Your task to perform on an android device: Clear the cart on costco.com. Search for "razer huntsman" on costco.com, select the first entry, and add it to the cart. Image 0: 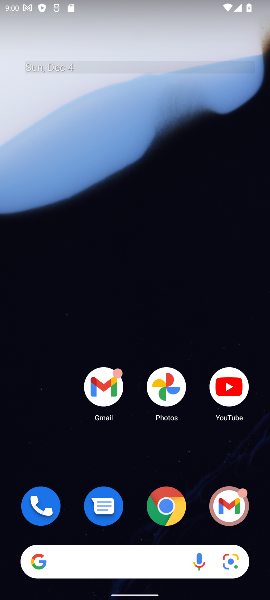
Step 0: click (155, 513)
Your task to perform on an android device: Clear the cart on costco.com. Search for "razer huntsman" on costco.com, select the first entry, and add it to the cart. Image 1: 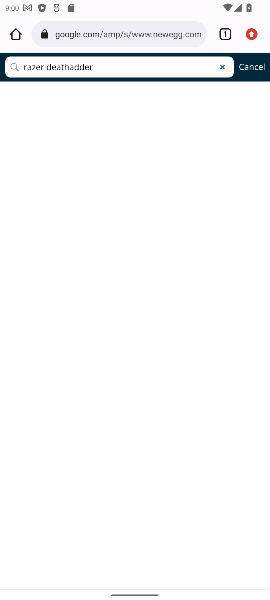
Step 1: click (102, 30)
Your task to perform on an android device: Clear the cart on costco.com. Search for "razer huntsman" on costco.com, select the first entry, and add it to the cart. Image 2: 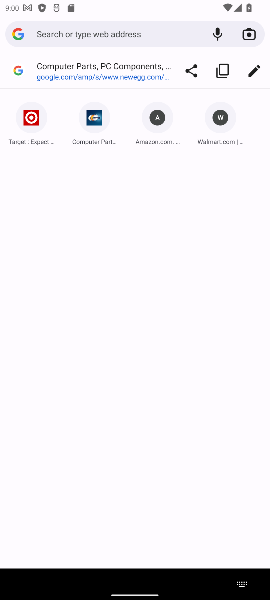
Step 2: type "costco"
Your task to perform on an android device: Clear the cart on costco.com. Search for "razer huntsman" on costco.com, select the first entry, and add it to the cart. Image 3: 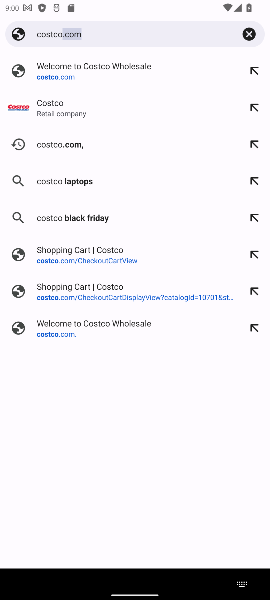
Step 3: click (61, 120)
Your task to perform on an android device: Clear the cart on costco.com. Search for "razer huntsman" on costco.com, select the first entry, and add it to the cart. Image 4: 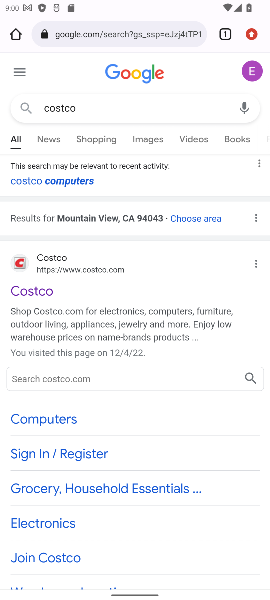
Step 4: click (37, 293)
Your task to perform on an android device: Clear the cart on costco.com. Search for "razer huntsman" on costco.com, select the first entry, and add it to the cart. Image 5: 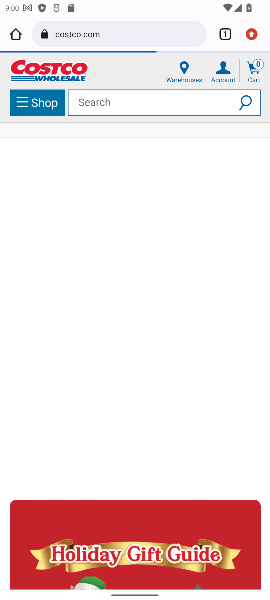
Step 5: click (254, 74)
Your task to perform on an android device: Clear the cart on costco.com. Search for "razer huntsman" on costco.com, select the first entry, and add it to the cart. Image 6: 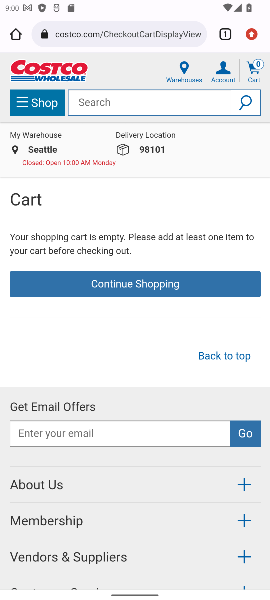
Step 6: click (122, 103)
Your task to perform on an android device: Clear the cart on costco.com. Search for "razer huntsman" on costco.com, select the first entry, and add it to the cart. Image 7: 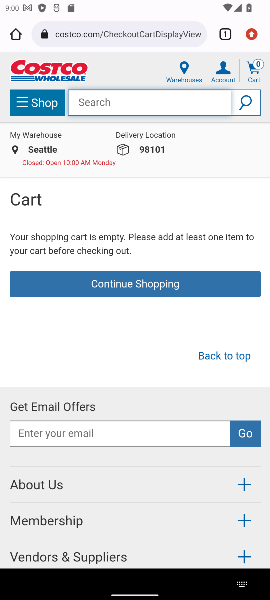
Step 7: type "razer huntsman"
Your task to perform on an android device: Clear the cart on costco.com. Search for "razer huntsman" on costco.com, select the first entry, and add it to the cart. Image 8: 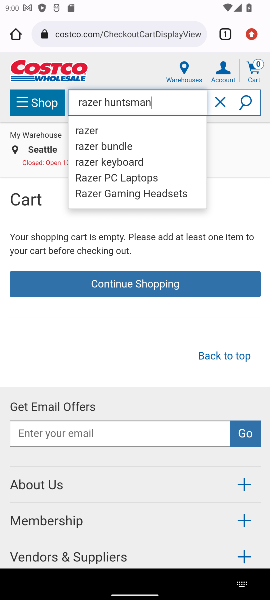
Step 8: click (246, 102)
Your task to perform on an android device: Clear the cart on costco.com. Search for "razer huntsman" on costco.com, select the first entry, and add it to the cart. Image 9: 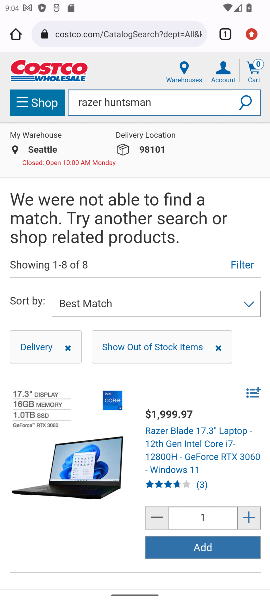
Step 9: task complete